Your task to perform on an android device: Go to Android settings Image 0: 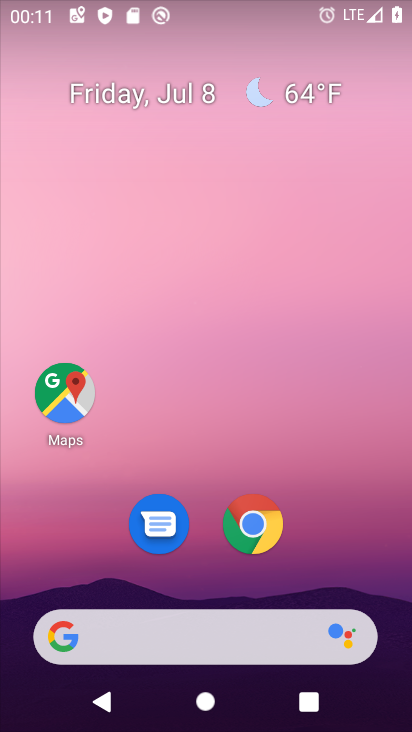
Step 0: drag from (323, 548) to (359, 29)
Your task to perform on an android device: Go to Android settings Image 1: 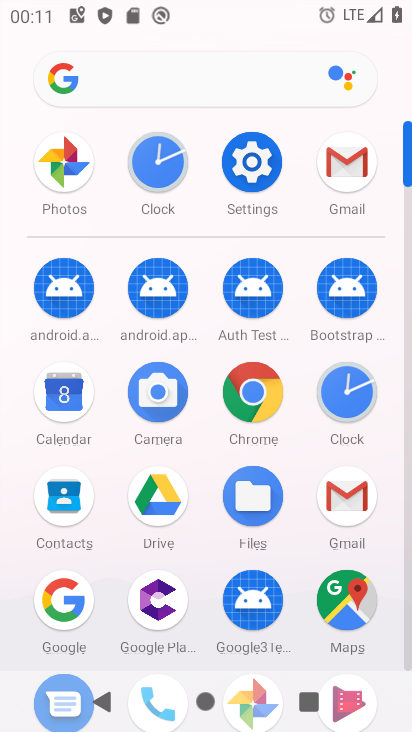
Step 1: click (256, 163)
Your task to perform on an android device: Go to Android settings Image 2: 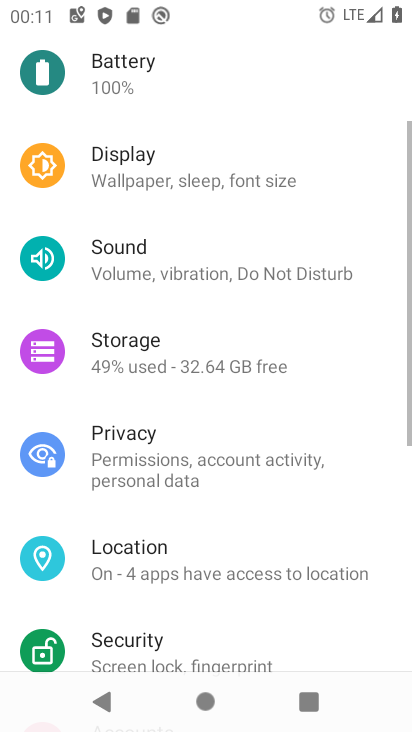
Step 2: drag from (271, 582) to (305, 98)
Your task to perform on an android device: Go to Android settings Image 3: 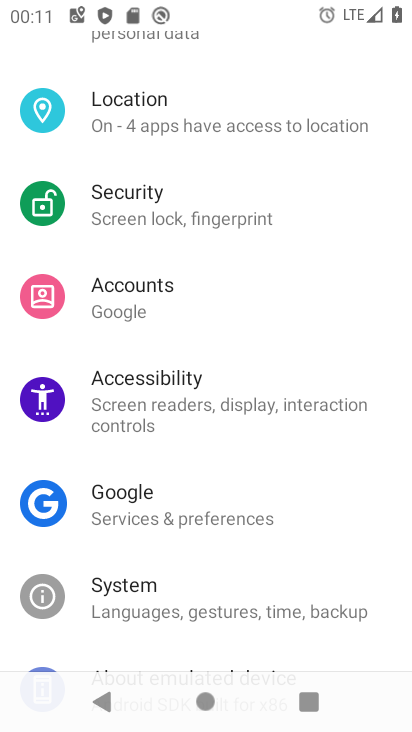
Step 3: drag from (200, 568) to (259, 347)
Your task to perform on an android device: Go to Android settings Image 4: 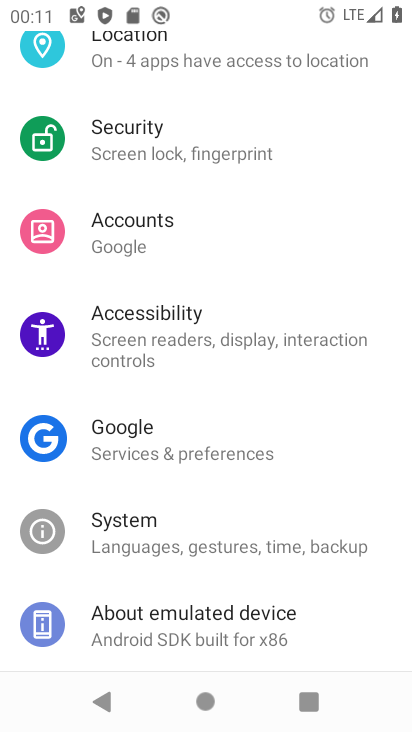
Step 4: click (180, 613)
Your task to perform on an android device: Go to Android settings Image 5: 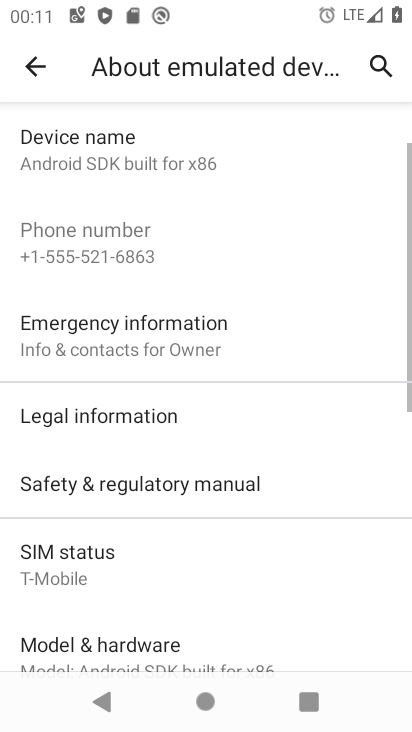
Step 5: task complete